Your task to perform on an android device: see sites visited before in the chrome app Image 0: 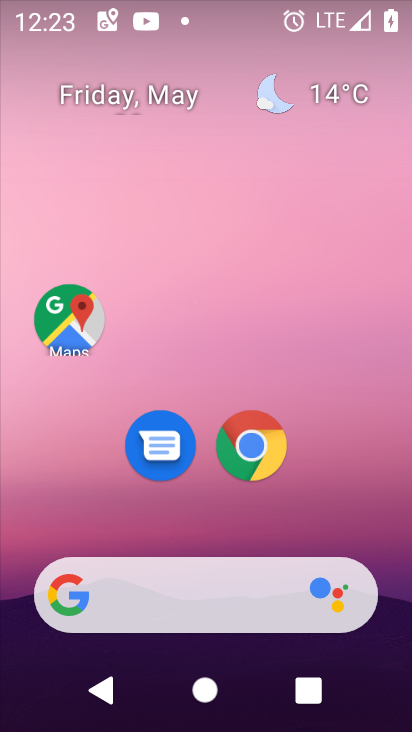
Step 0: drag from (236, 471) to (281, 128)
Your task to perform on an android device: see sites visited before in the chrome app Image 1: 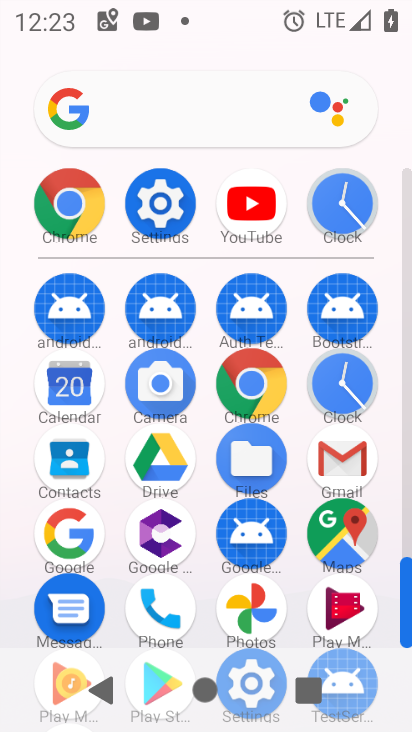
Step 1: click (247, 388)
Your task to perform on an android device: see sites visited before in the chrome app Image 2: 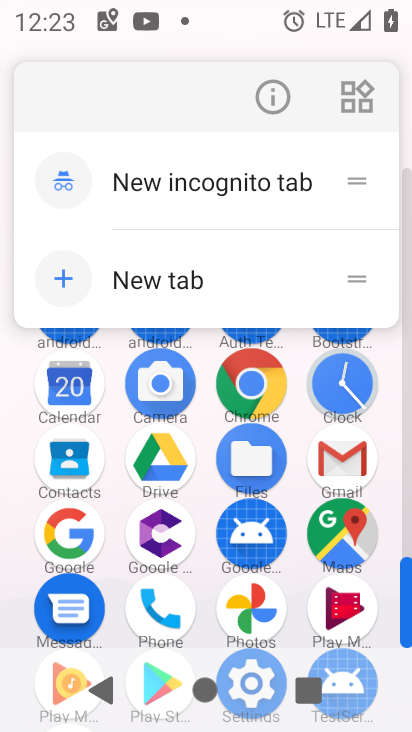
Step 2: click (253, 384)
Your task to perform on an android device: see sites visited before in the chrome app Image 3: 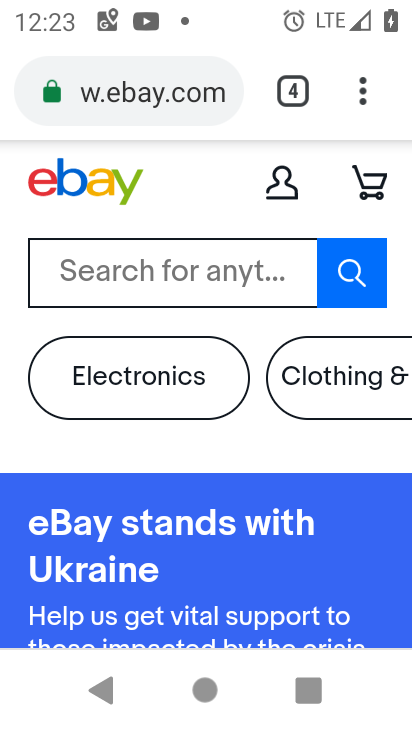
Step 3: click (352, 96)
Your task to perform on an android device: see sites visited before in the chrome app Image 4: 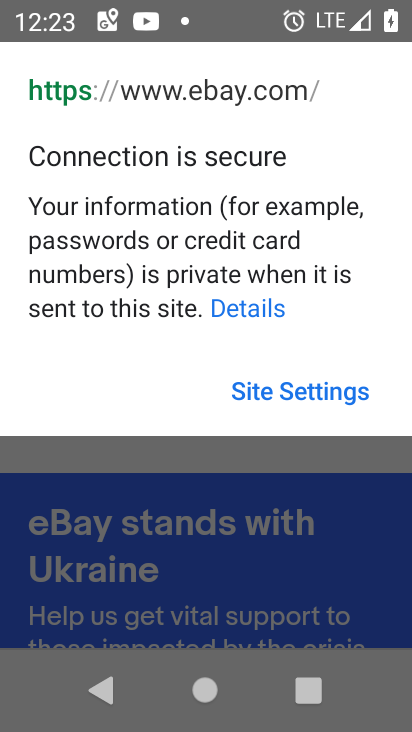
Step 4: task complete